Your task to perform on an android device: Go to calendar. Show me events next week Image 0: 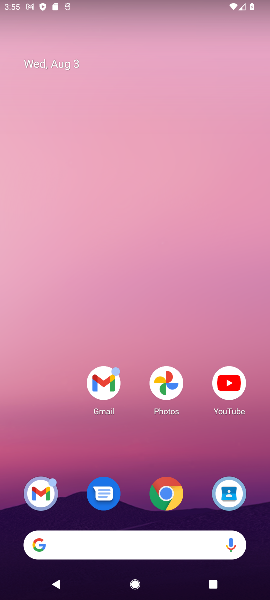
Step 0: drag from (19, 443) to (51, 139)
Your task to perform on an android device: Go to calendar. Show me events next week Image 1: 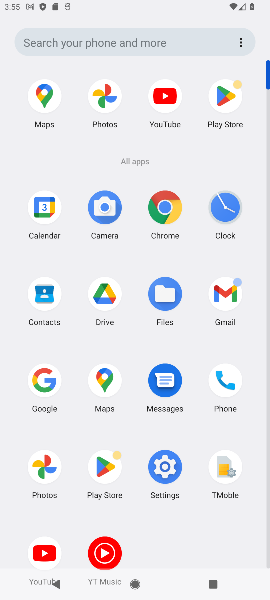
Step 1: drag from (73, 512) to (75, 400)
Your task to perform on an android device: Go to calendar. Show me events next week Image 2: 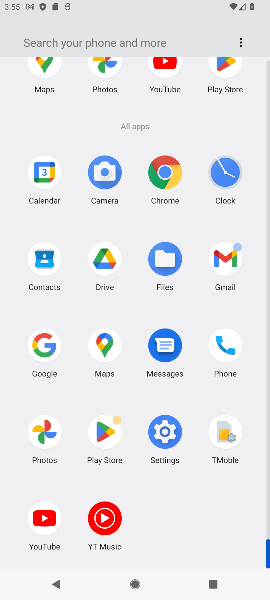
Step 2: click (47, 176)
Your task to perform on an android device: Go to calendar. Show me events next week Image 3: 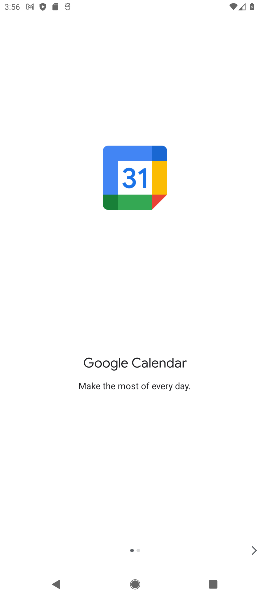
Step 3: click (253, 553)
Your task to perform on an android device: Go to calendar. Show me events next week Image 4: 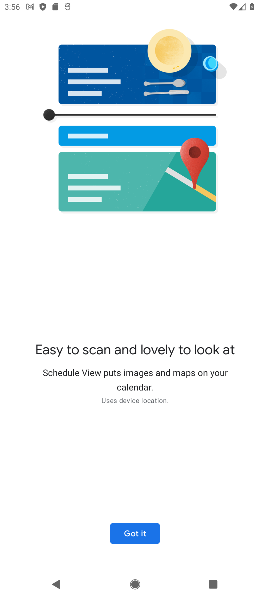
Step 4: click (148, 534)
Your task to perform on an android device: Go to calendar. Show me events next week Image 5: 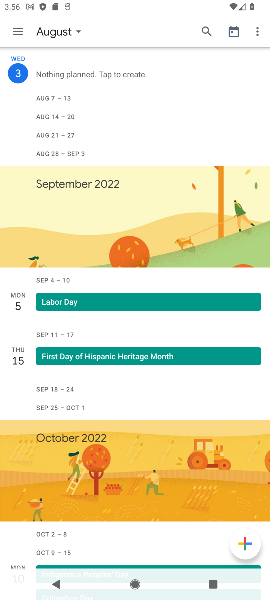
Step 5: click (79, 30)
Your task to perform on an android device: Go to calendar. Show me events next week Image 6: 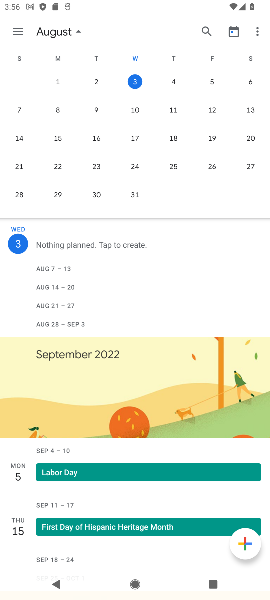
Step 6: click (58, 110)
Your task to perform on an android device: Go to calendar. Show me events next week Image 7: 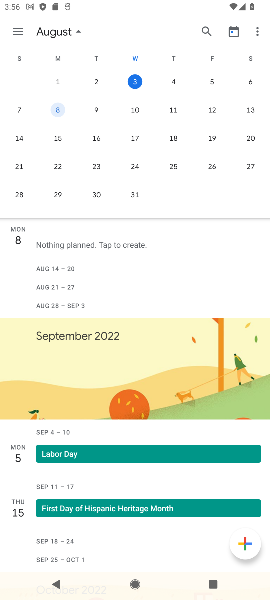
Step 7: task complete